Your task to perform on an android device: open app "Spotify" Image 0: 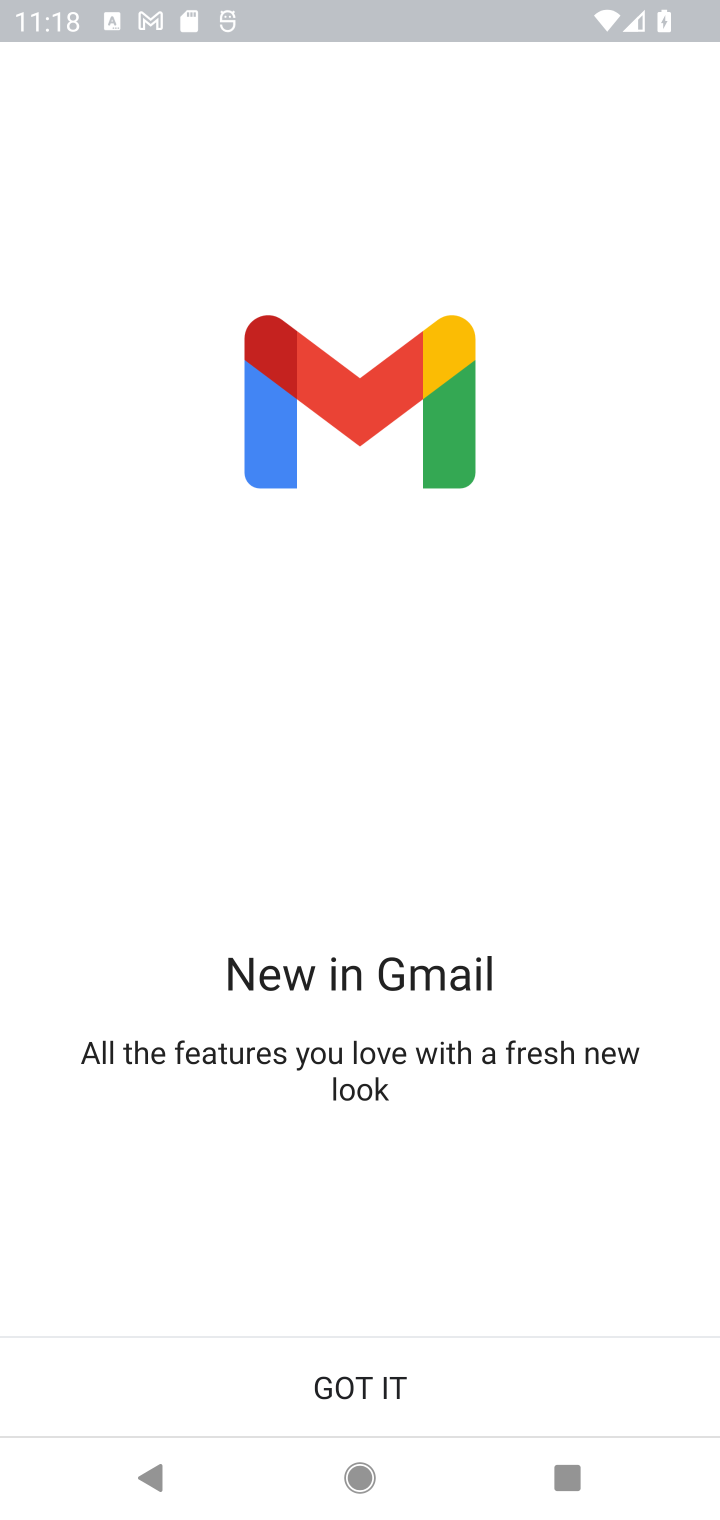
Step 0: press home button
Your task to perform on an android device: open app "Spotify" Image 1: 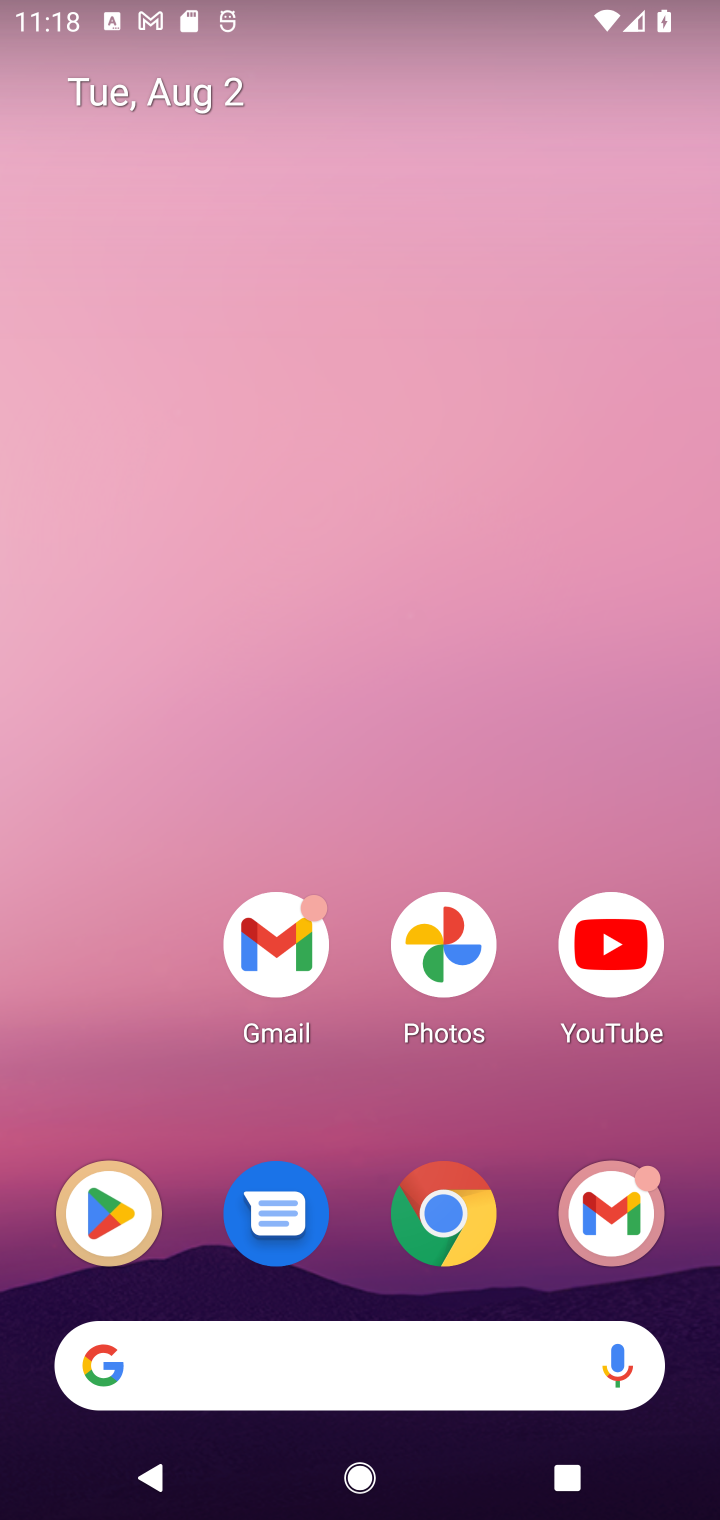
Step 1: click (117, 1228)
Your task to perform on an android device: open app "Spotify" Image 2: 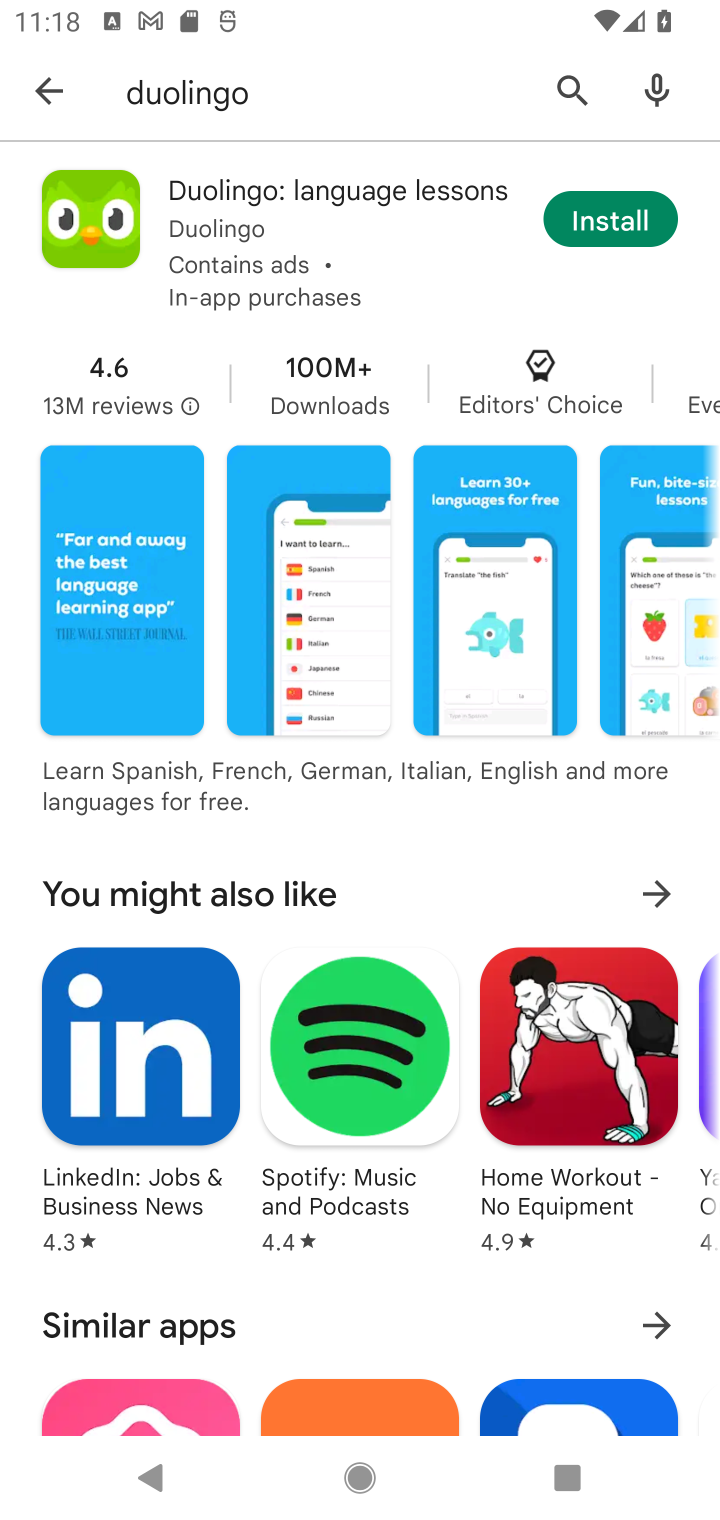
Step 2: click (36, 100)
Your task to perform on an android device: open app "Spotify" Image 3: 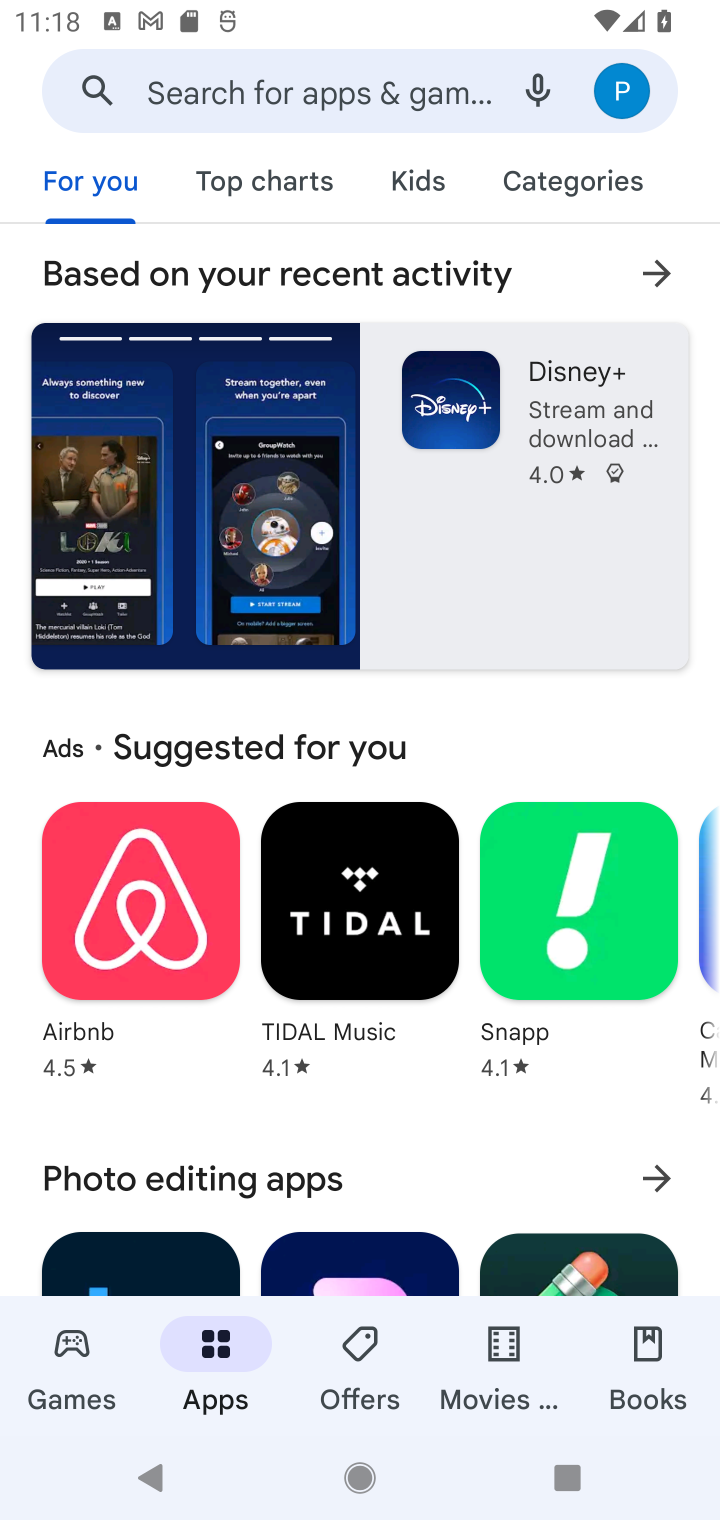
Step 3: click (297, 79)
Your task to perform on an android device: open app "Spotify" Image 4: 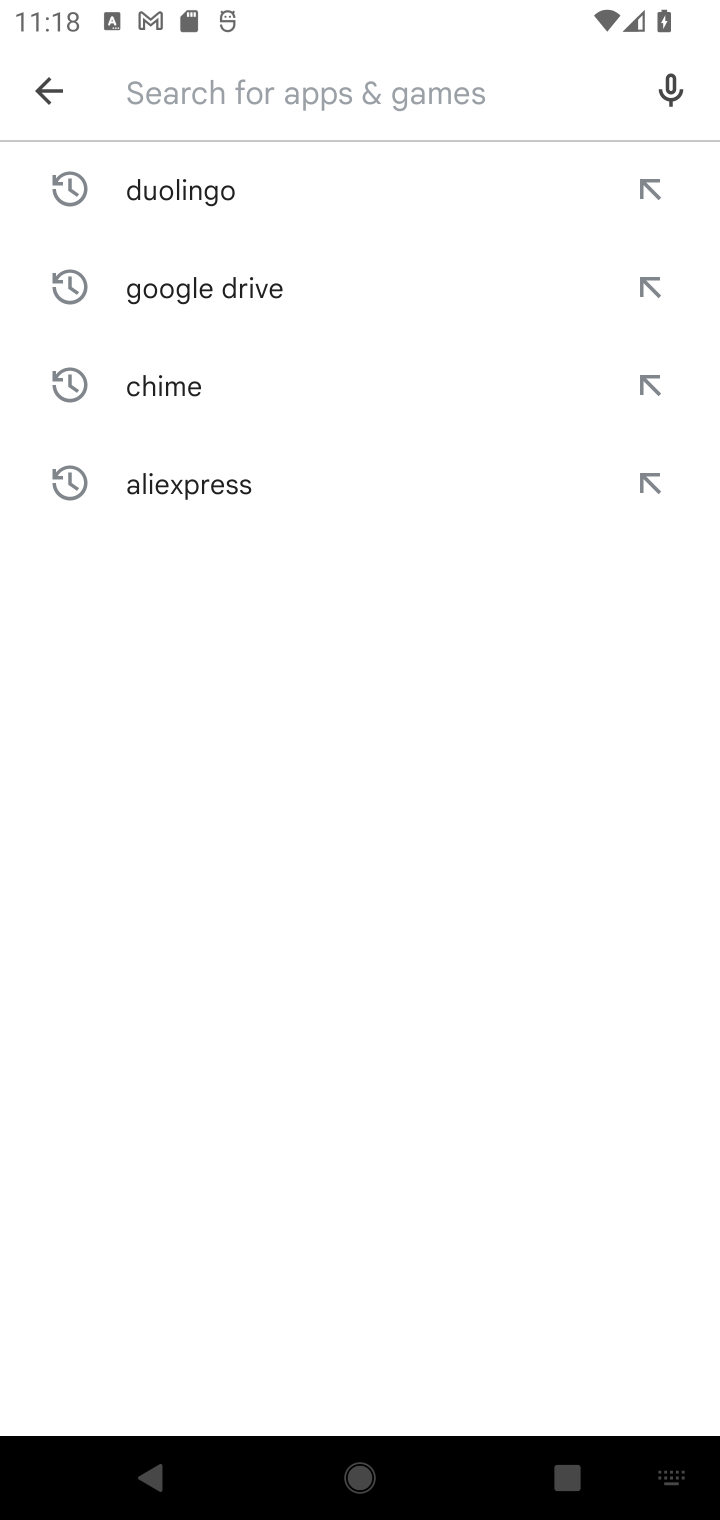
Step 4: type "Spotify"
Your task to perform on an android device: open app "Spotify" Image 5: 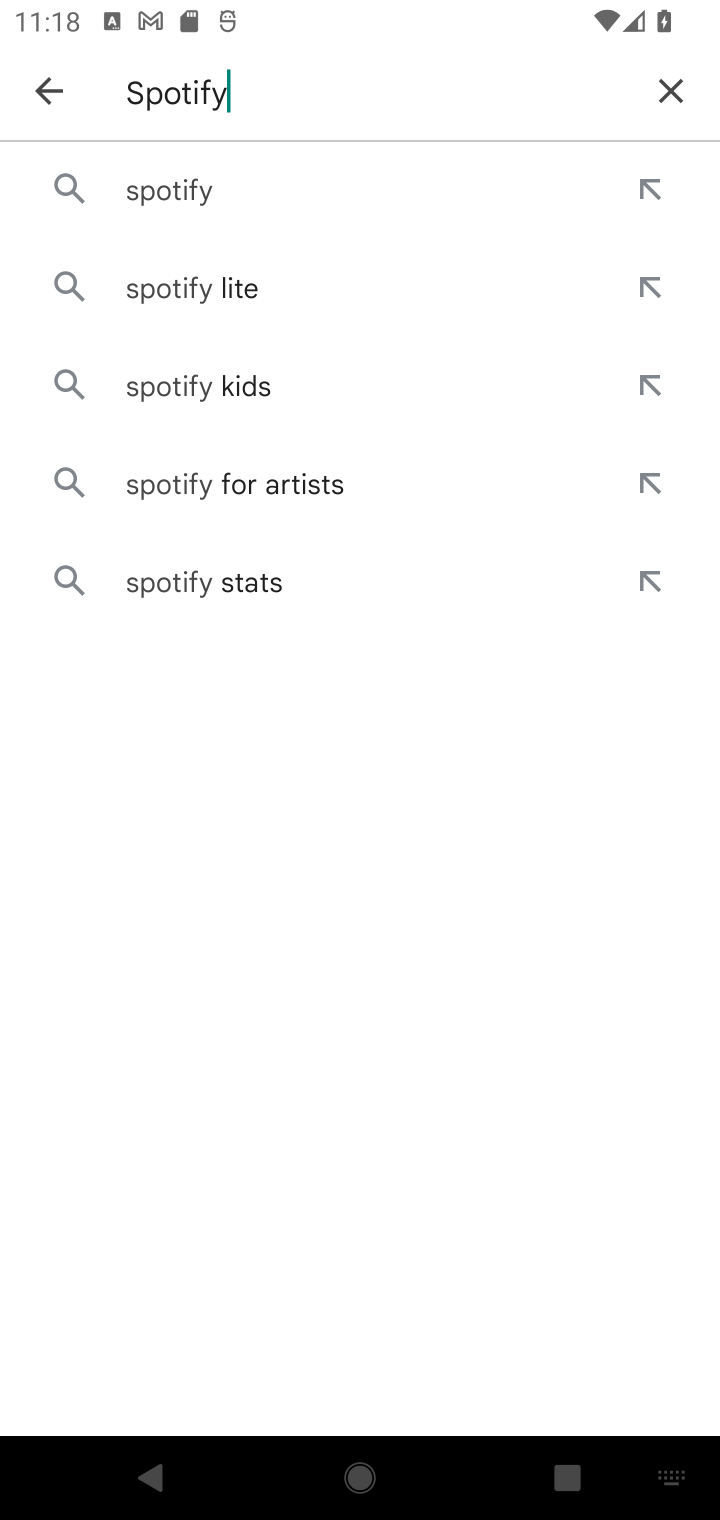
Step 5: click (168, 184)
Your task to perform on an android device: open app "Spotify" Image 6: 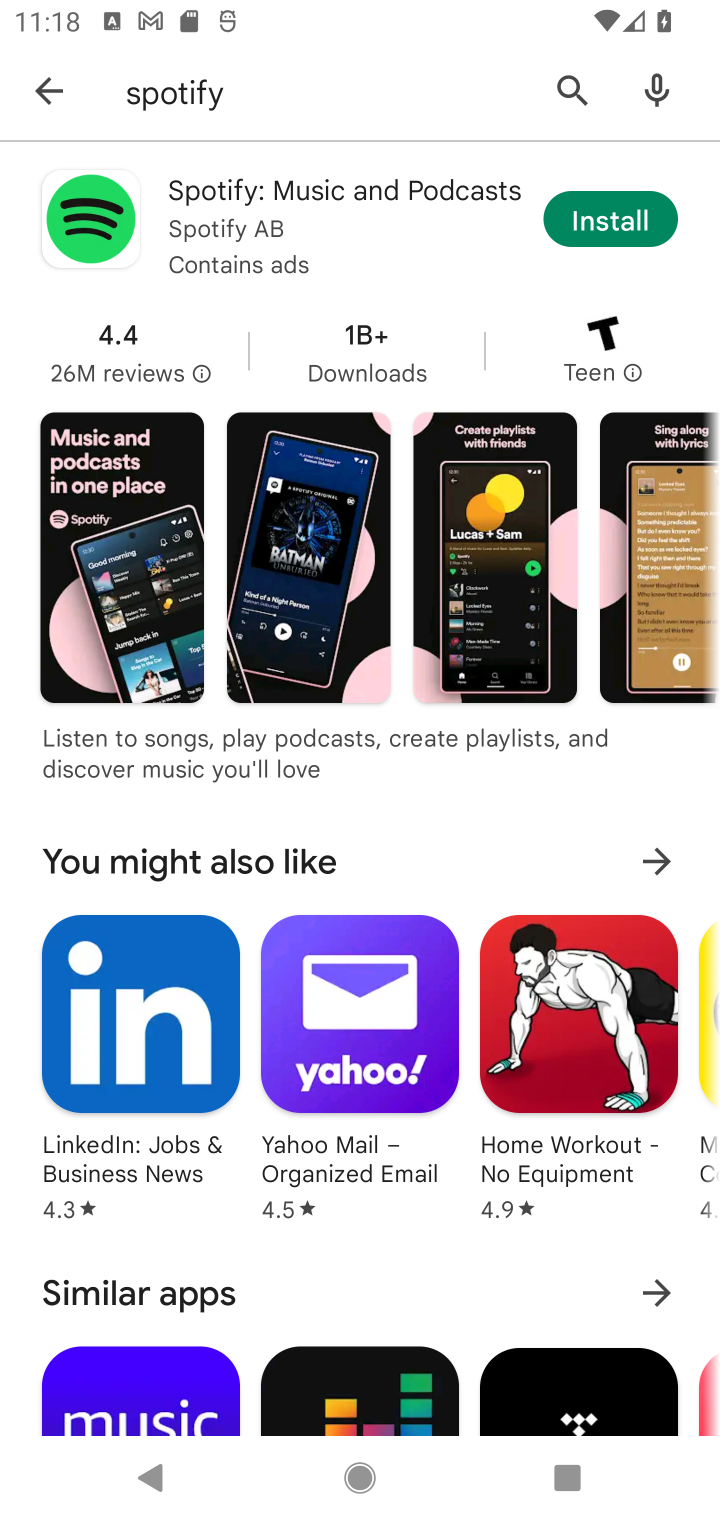
Step 6: click (613, 223)
Your task to perform on an android device: open app "Spotify" Image 7: 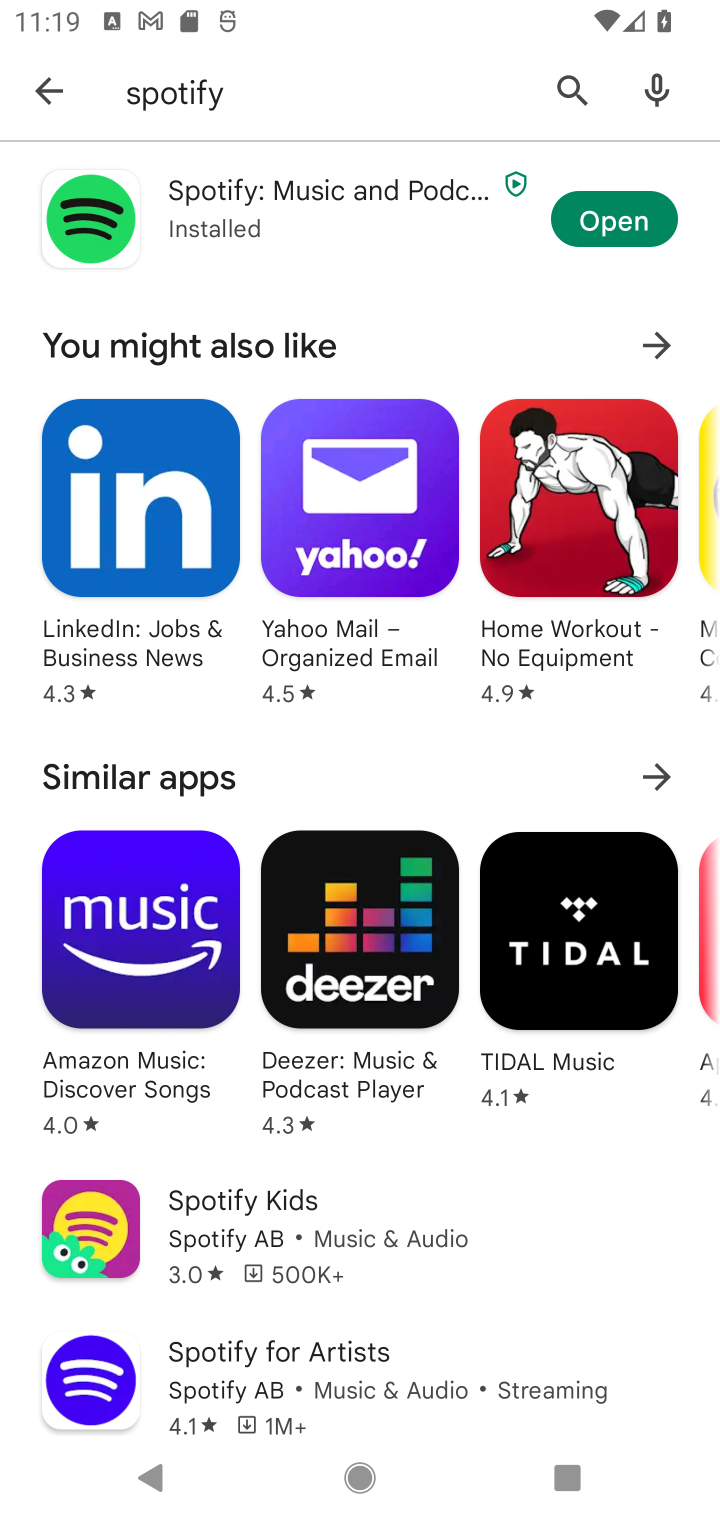
Step 7: click (613, 223)
Your task to perform on an android device: open app "Spotify" Image 8: 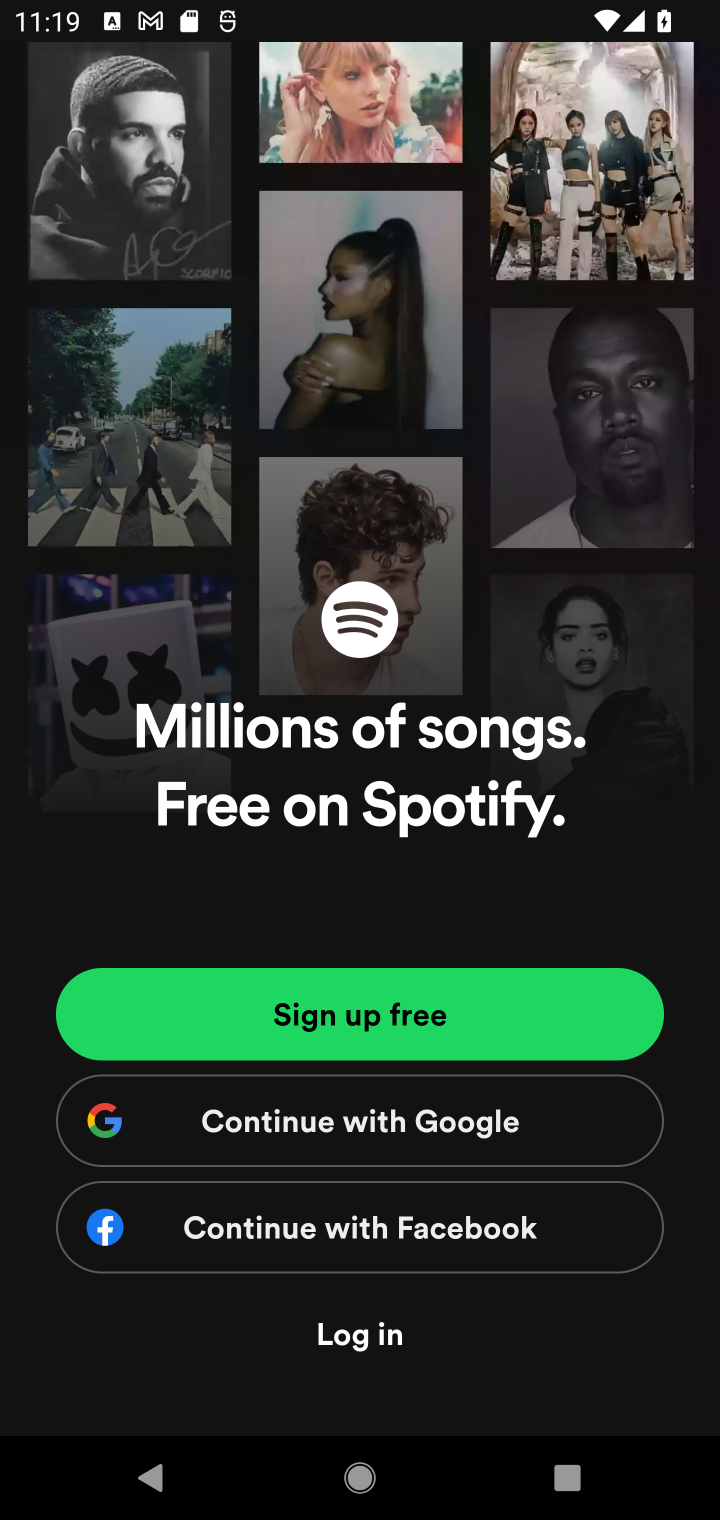
Step 8: task complete